Your task to perform on an android device: Search for dining sets on article.com Image 0: 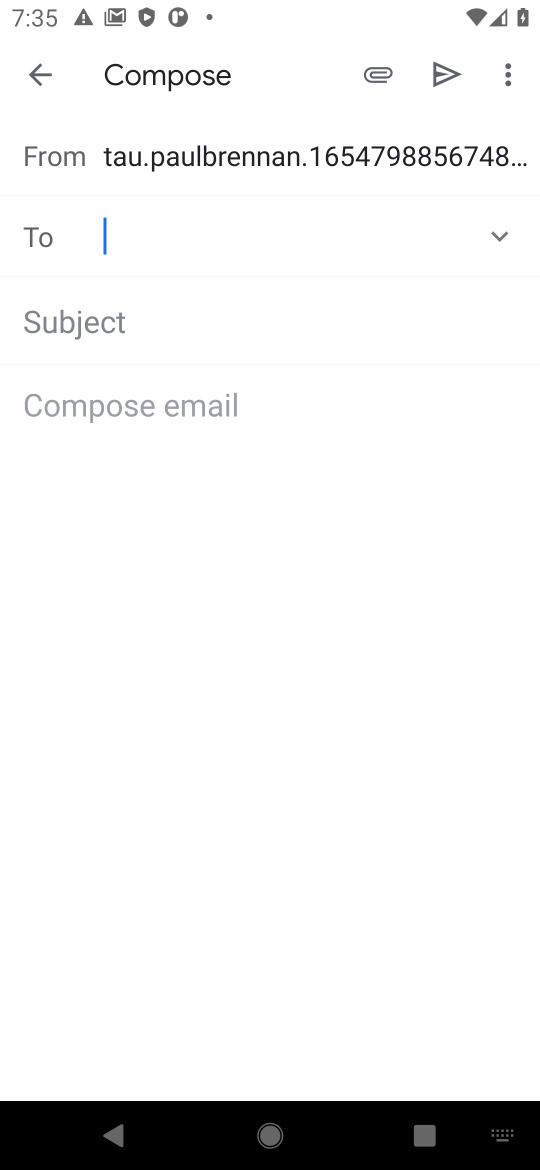
Step 0: press home button
Your task to perform on an android device: Search for dining sets on article.com Image 1: 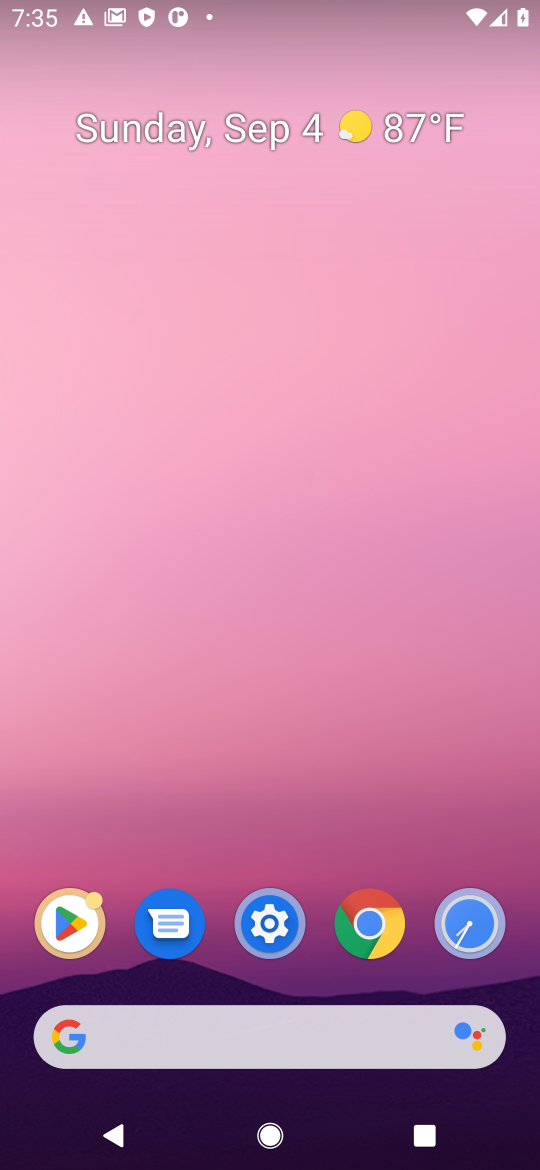
Step 1: click (356, 1024)
Your task to perform on an android device: Search for dining sets on article.com Image 2: 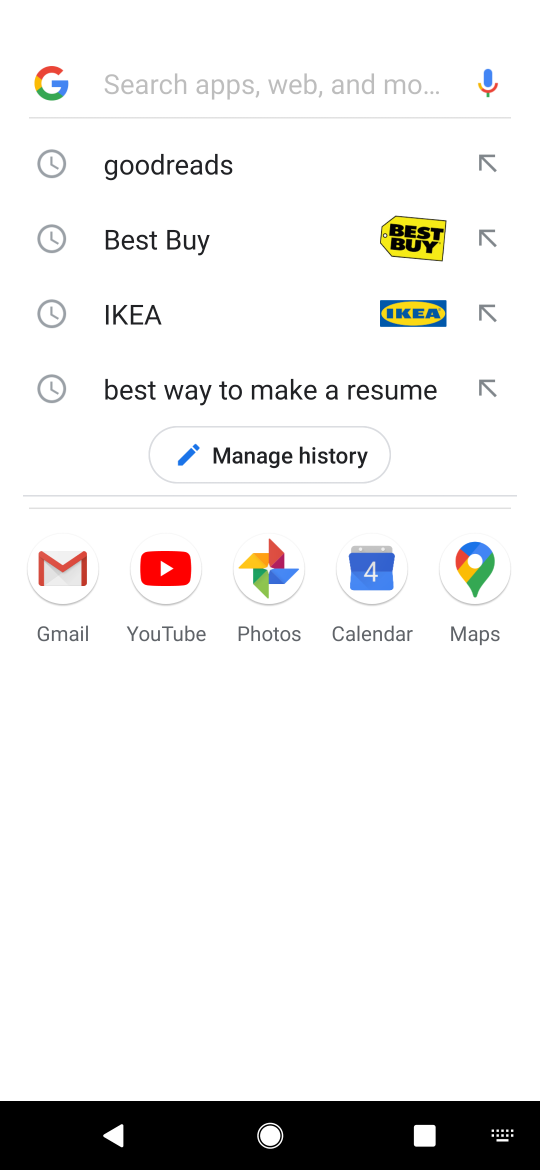
Step 2: press enter
Your task to perform on an android device: Search for dining sets on article.com Image 3: 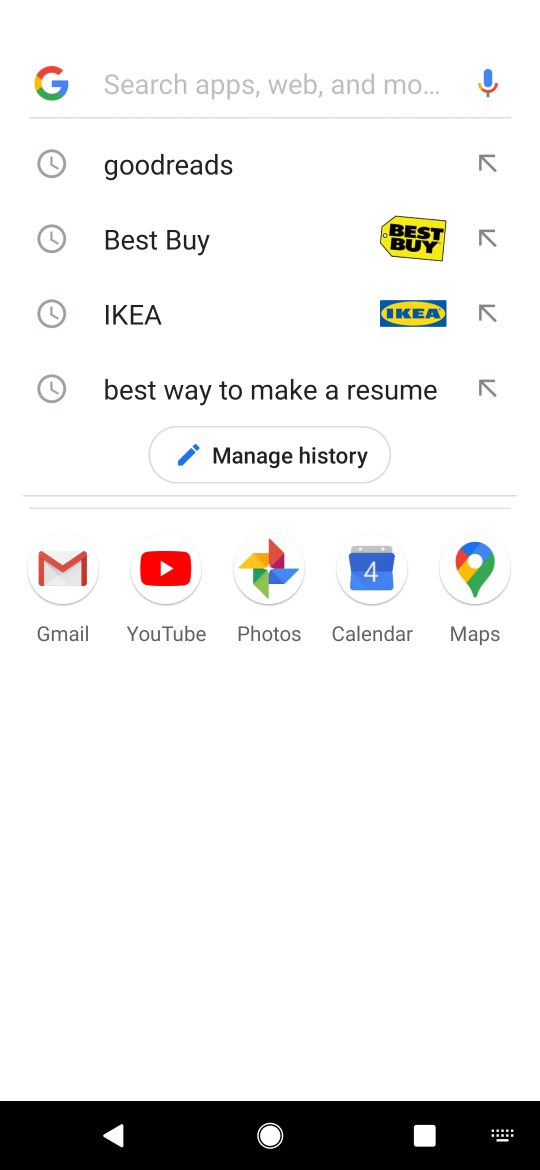
Step 3: type "article.com"
Your task to perform on an android device: Search for dining sets on article.com Image 4: 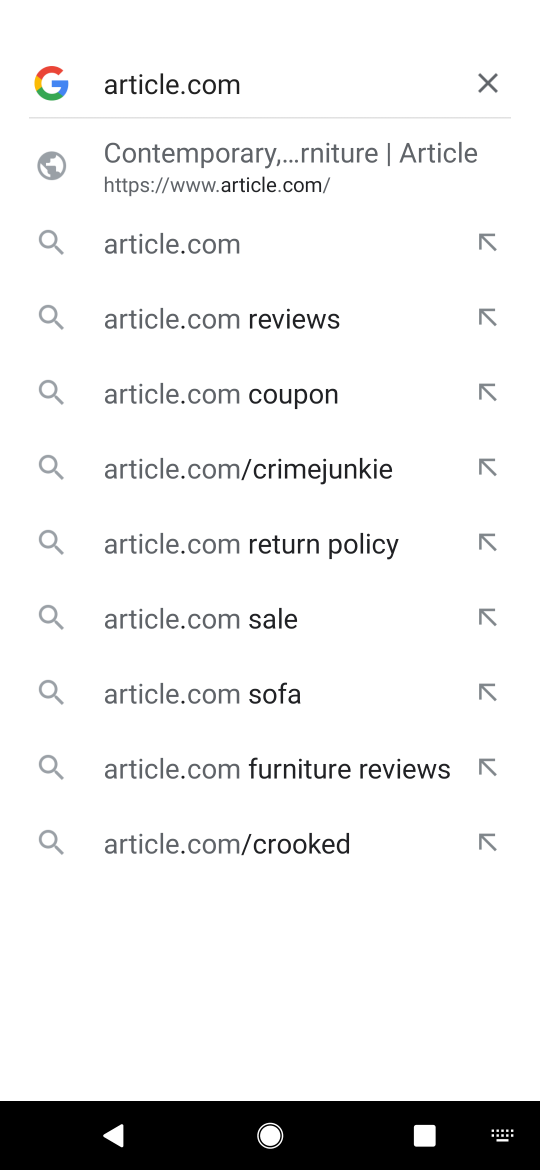
Step 4: click (245, 167)
Your task to perform on an android device: Search for dining sets on article.com Image 5: 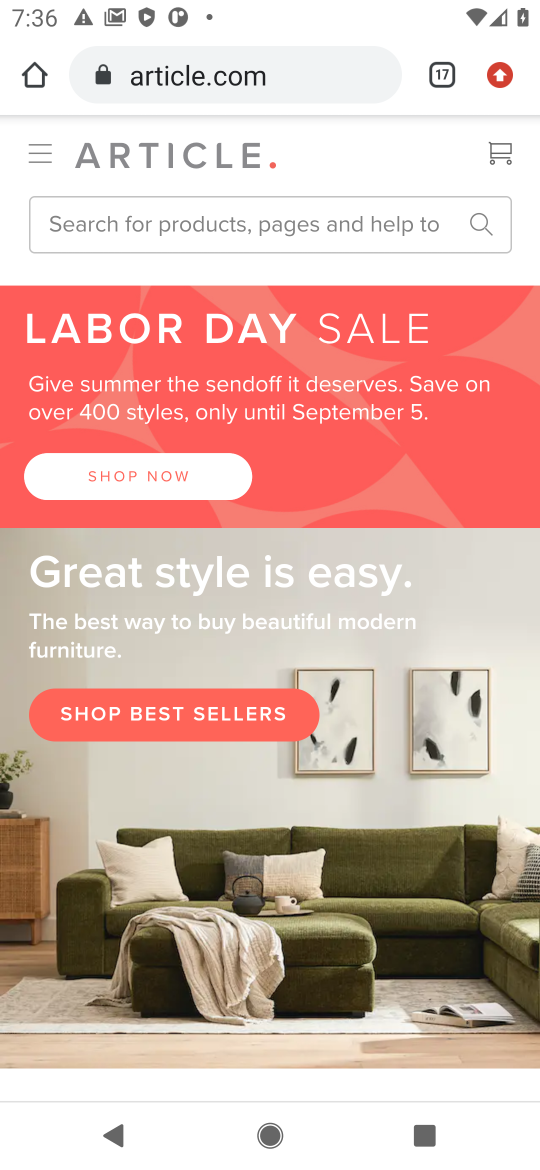
Step 5: click (131, 222)
Your task to perform on an android device: Search for dining sets on article.com Image 6: 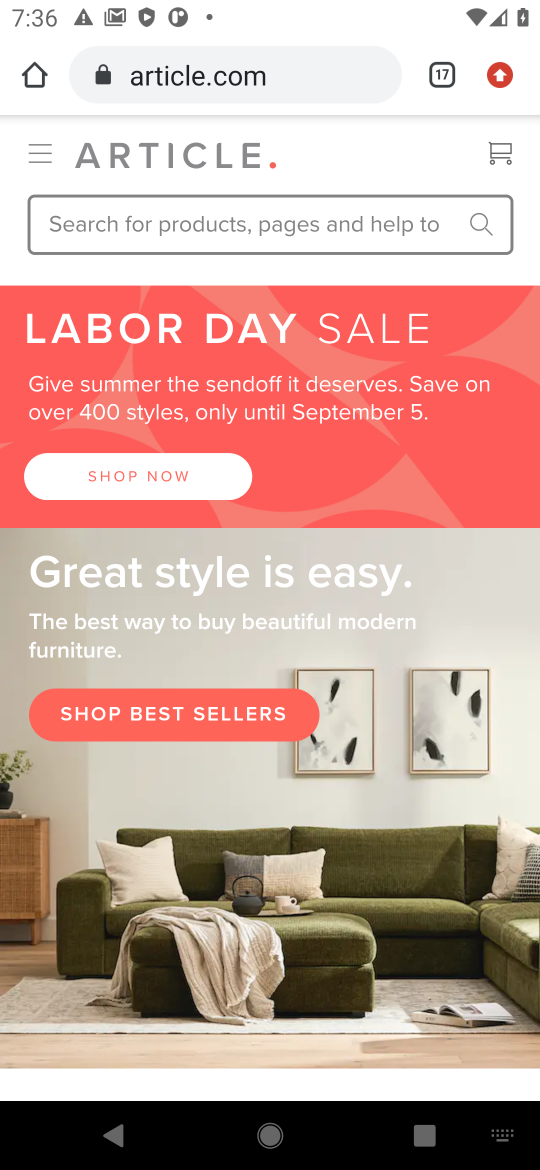
Step 6: click (71, 218)
Your task to perform on an android device: Search for dining sets on article.com Image 7: 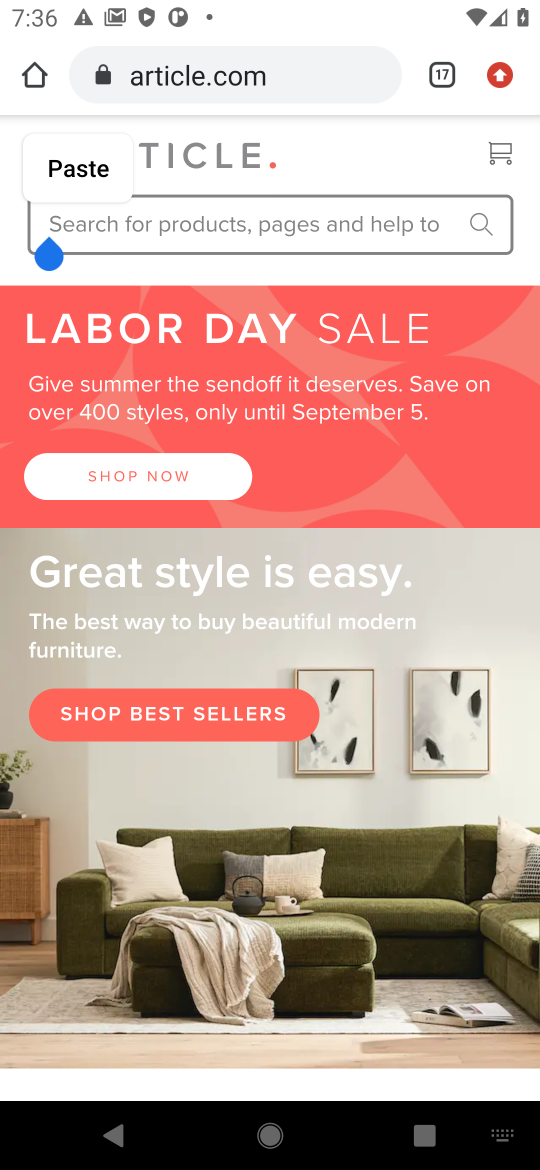
Step 7: press enter
Your task to perform on an android device: Search for dining sets on article.com Image 8: 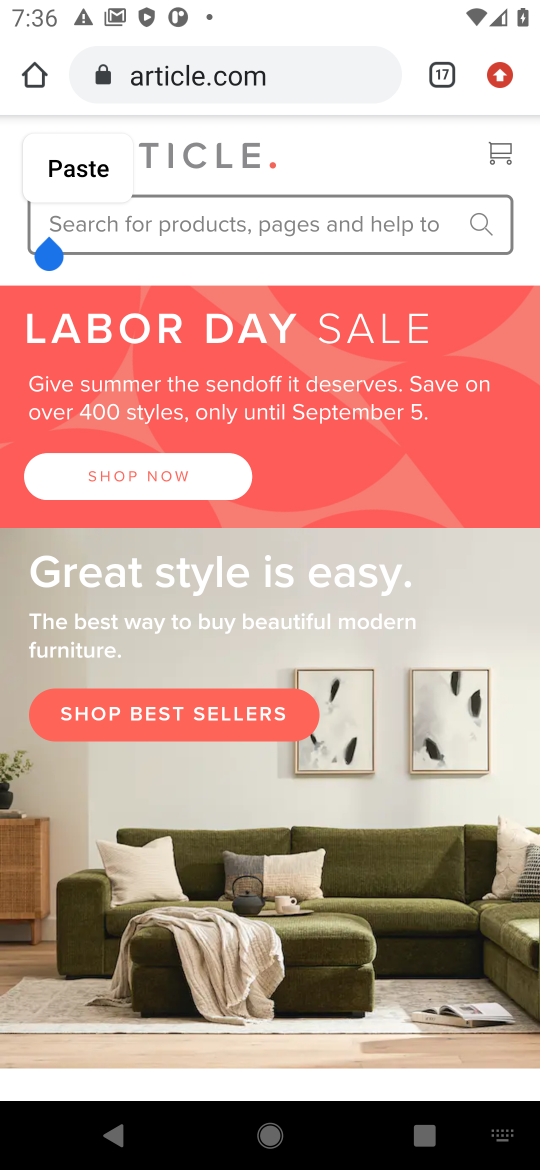
Step 8: type "dining sets"
Your task to perform on an android device: Search for dining sets on article.com Image 9: 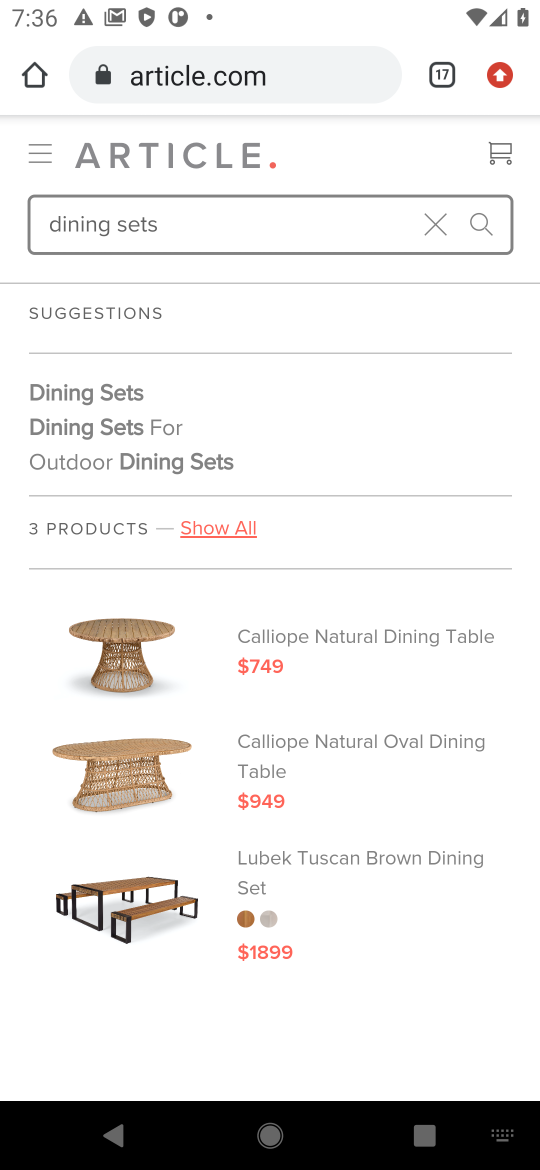
Step 9: task complete